Your task to perform on an android device: snooze an email in the gmail app Image 0: 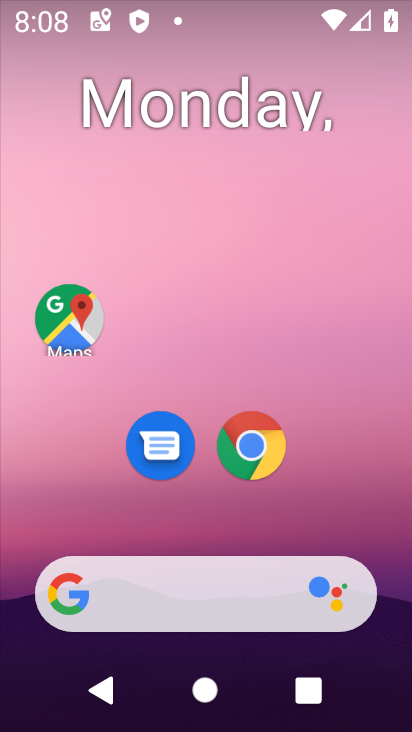
Step 0: drag from (135, 530) to (248, 18)
Your task to perform on an android device: snooze an email in the gmail app Image 1: 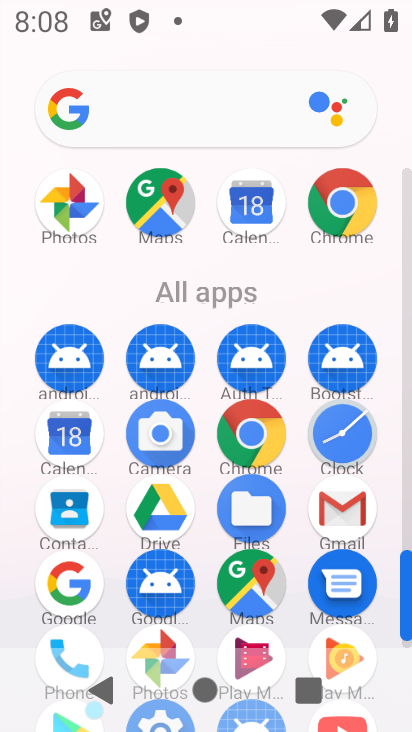
Step 1: click (348, 523)
Your task to perform on an android device: snooze an email in the gmail app Image 2: 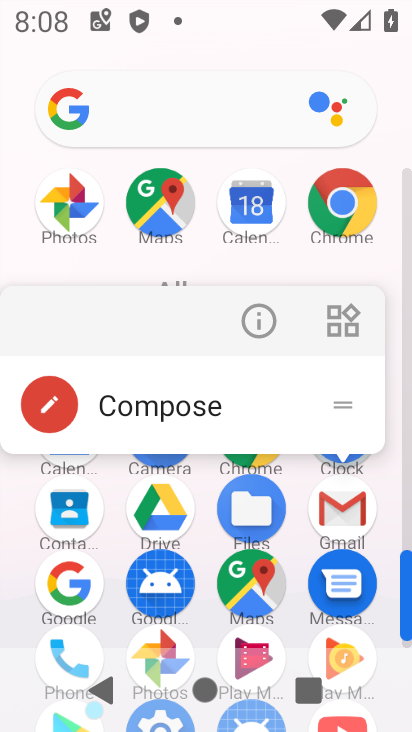
Step 2: click (348, 524)
Your task to perform on an android device: snooze an email in the gmail app Image 3: 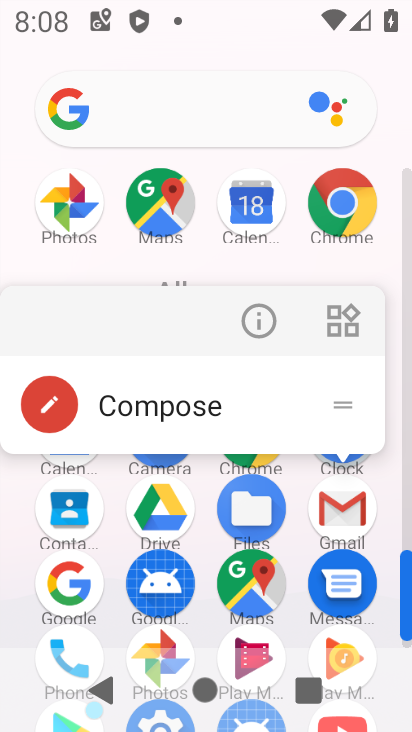
Step 3: click (348, 524)
Your task to perform on an android device: snooze an email in the gmail app Image 4: 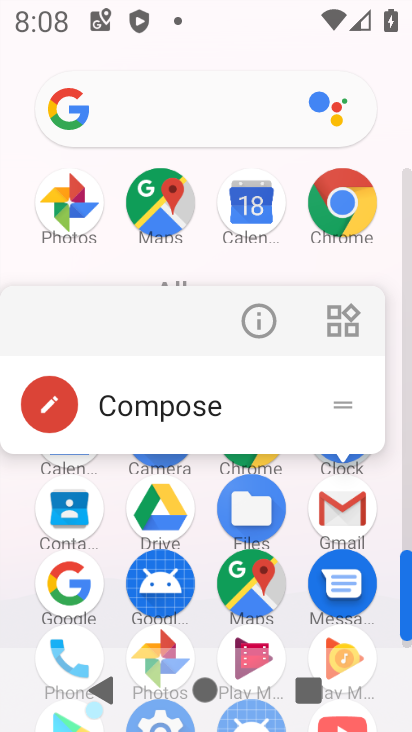
Step 4: click (360, 486)
Your task to perform on an android device: snooze an email in the gmail app Image 5: 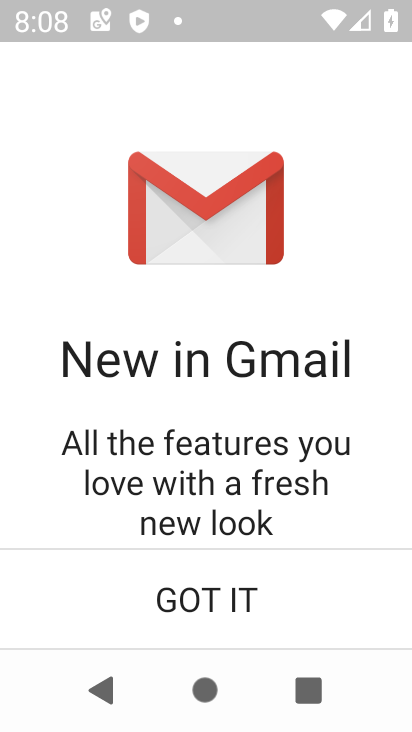
Step 5: click (192, 613)
Your task to perform on an android device: snooze an email in the gmail app Image 6: 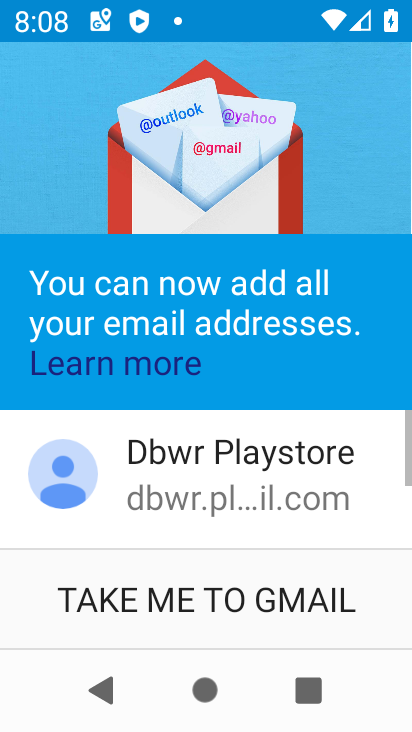
Step 6: click (192, 606)
Your task to perform on an android device: snooze an email in the gmail app Image 7: 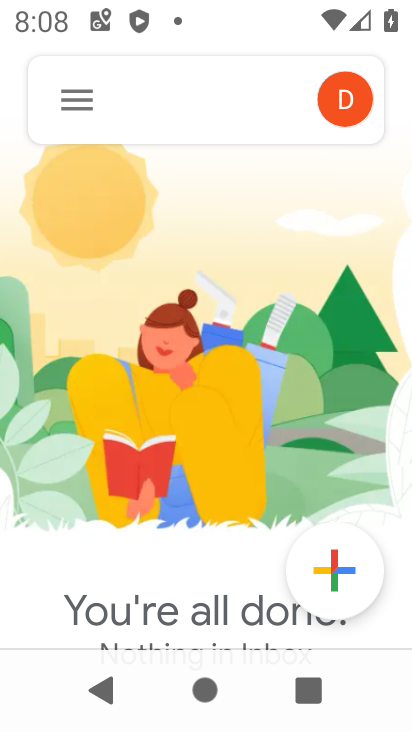
Step 7: click (79, 82)
Your task to perform on an android device: snooze an email in the gmail app Image 8: 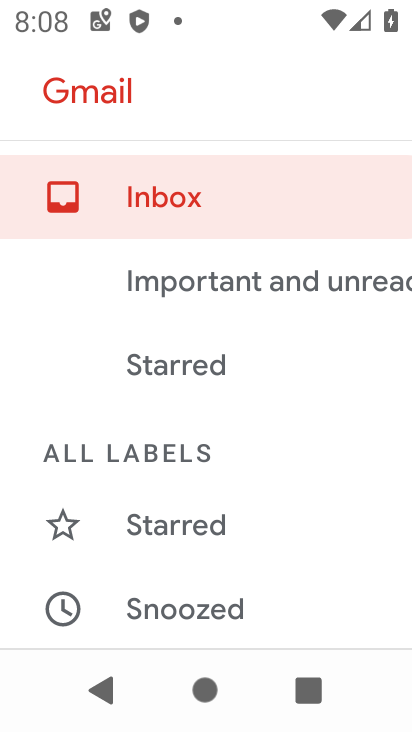
Step 8: drag from (285, 560) to (389, 167)
Your task to perform on an android device: snooze an email in the gmail app Image 9: 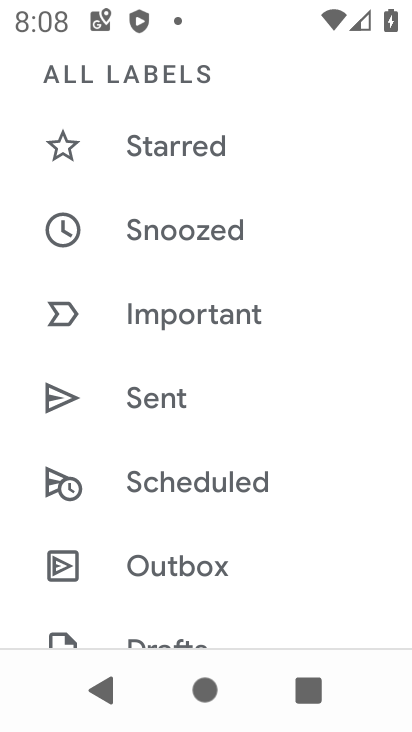
Step 9: drag from (249, 580) to (314, 252)
Your task to perform on an android device: snooze an email in the gmail app Image 10: 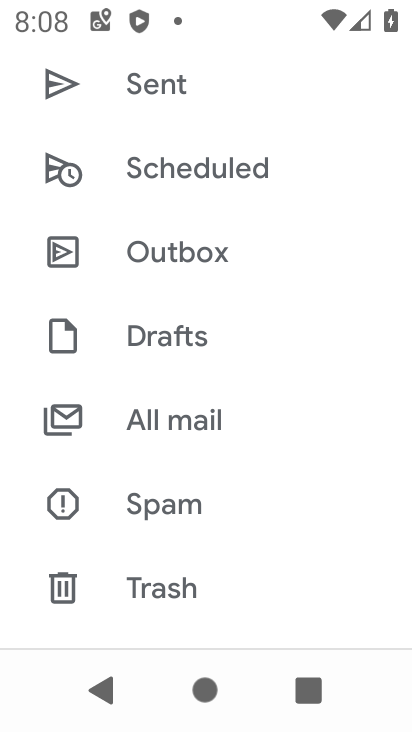
Step 10: click (218, 428)
Your task to perform on an android device: snooze an email in the gmail app Image 11: 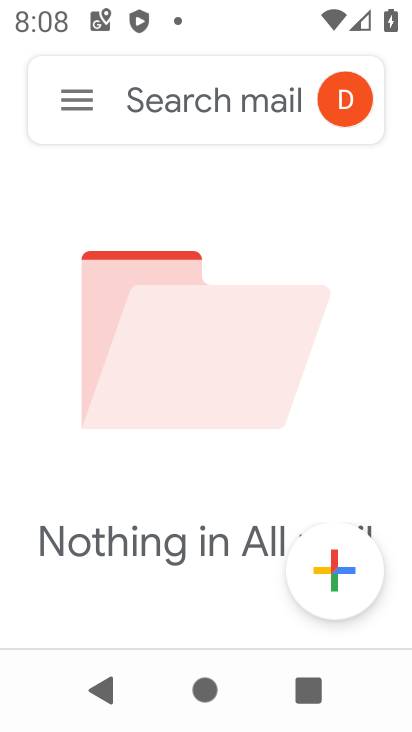
Step 11: task complete